Your task to perform on an android device: check out phone information Image 0: 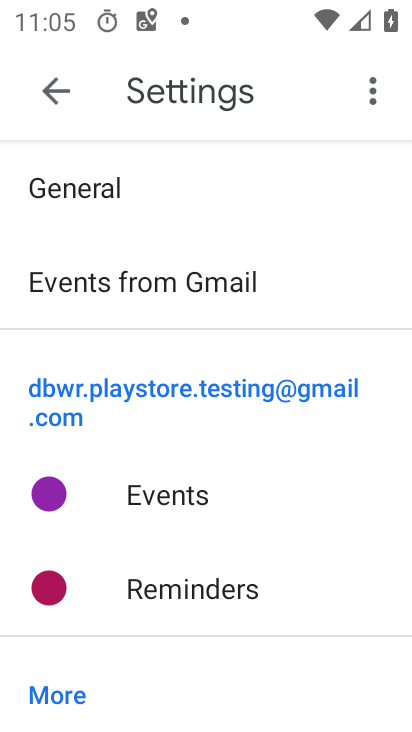
Step 0: press home button
Your task to perform on an android device: check out phone information Image 1: 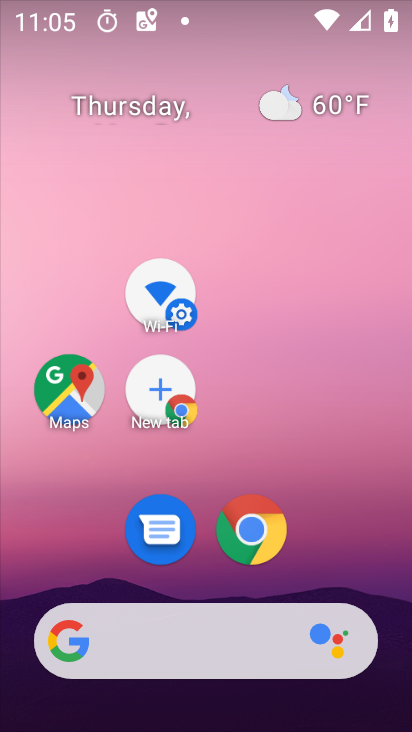
Step 1: drag from (382, 581) to (144, 77)
Your task to perform on an android device: check out phone information Image 2: 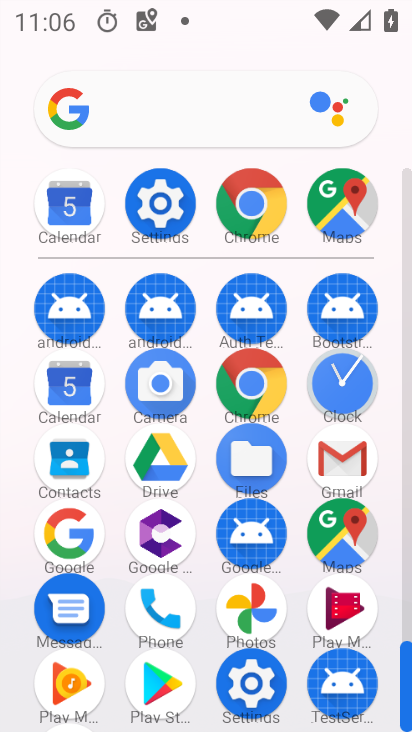
Step 2: click (251, 690)
Your task to perform on an android device: check out phone information Image 3: 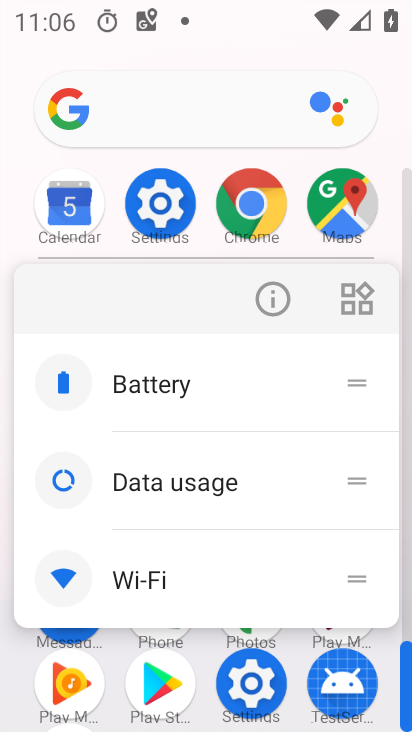
Step 3: click (239, 663)
Your task to perform on an android device: check out phone information Image 4: 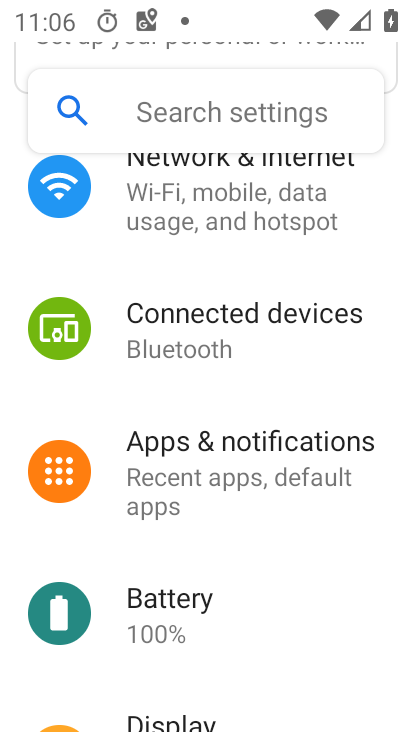
Step 4: drag from (235, 585) to (78, 95)
Your task to perform on an android device: check out phone information Image 5: 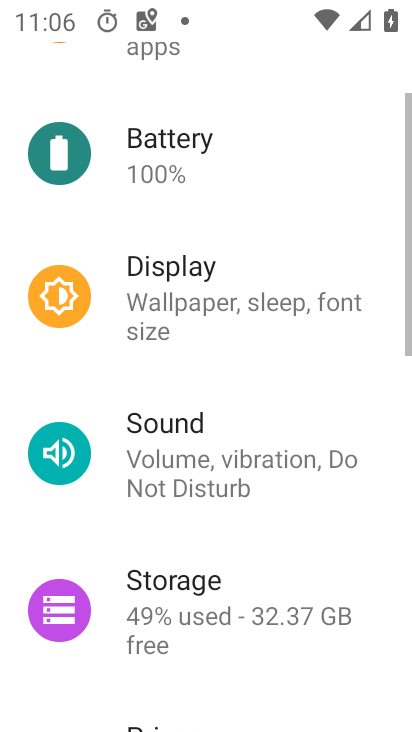
Step 5: drag from (280, 516) to (209, 117)
Your task to perform on an android device: check out phone information Image 6: 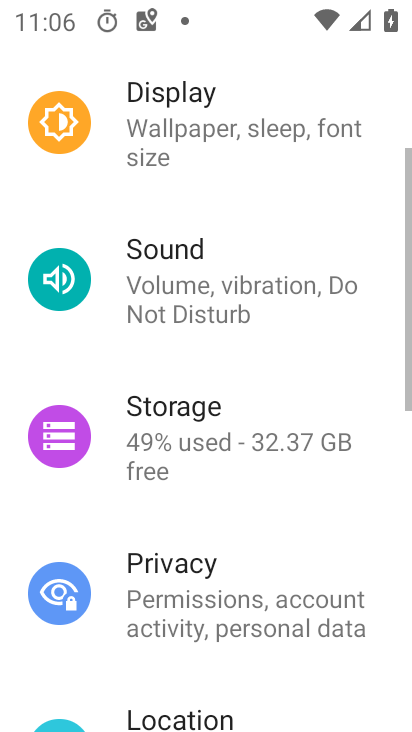
Step 6: drag from (221, 473) to (191, 2)
Your task to perform on an android device: check out phone information Image 7: 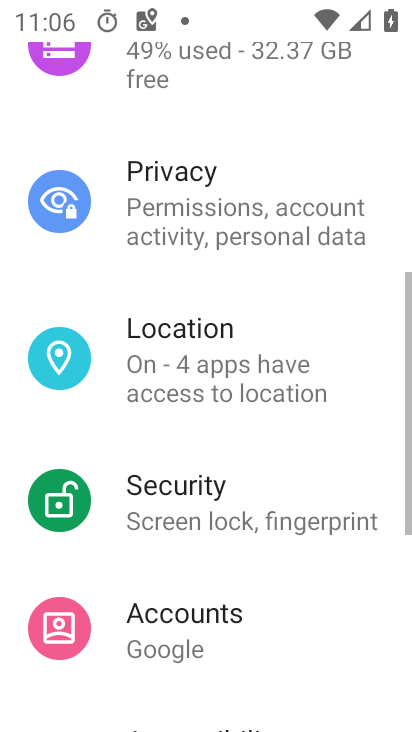
Step 7: drag from (204, 371) to (166, 14)
Your task to perform on an android device: check out phone information Image 8: 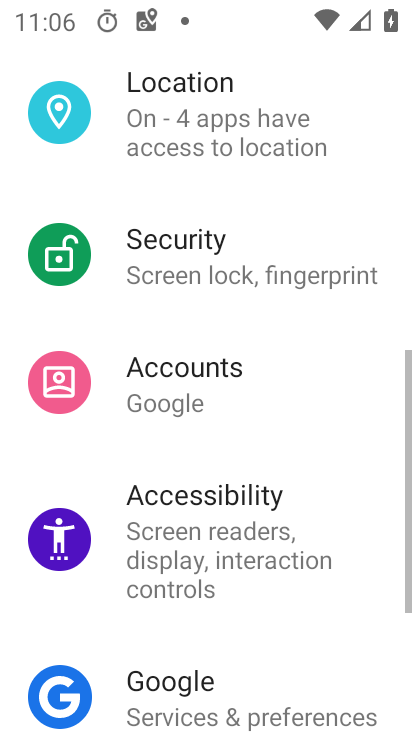
Step 8: drag from (189, 495) to (87, 1)
Your task to perform on an android device: check out phone information Image 9: 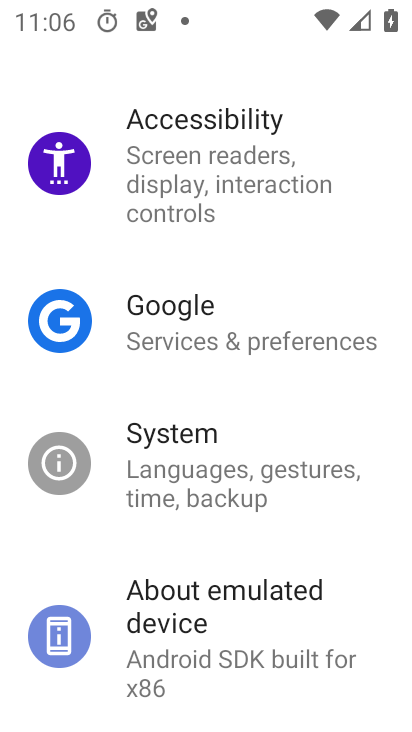
Step 9: click (205, 639)
Your task to perform on an android device: check out phone information Image 10: 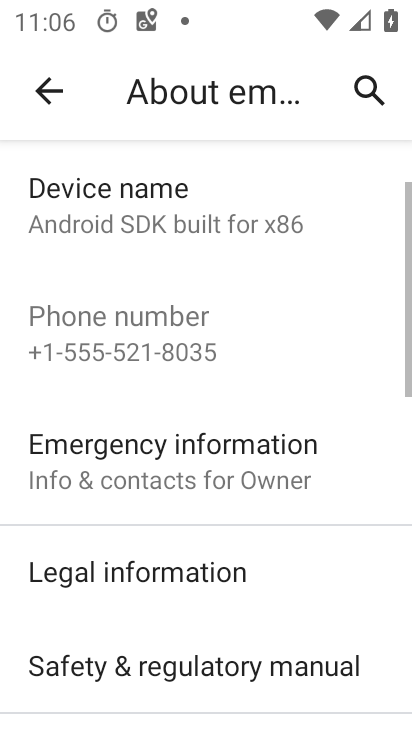
Step 10: click (156, 456)
Your task to perform on an android device: check out phone information Image 11: 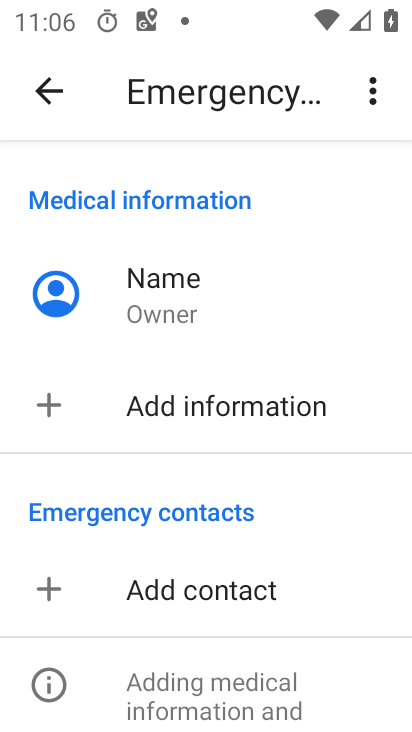
Step 11: click (45, 94)
Your task to perform on an android device: check out phone information Image 12: 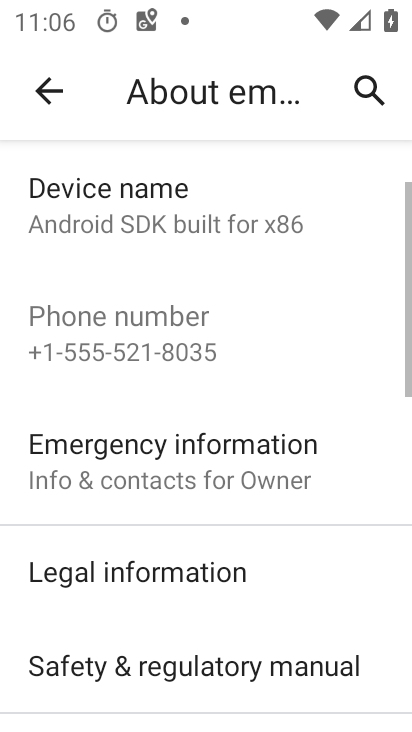
Step 12: task complete